Your task to perform on an android device: What's on my calendar today? Image 0: 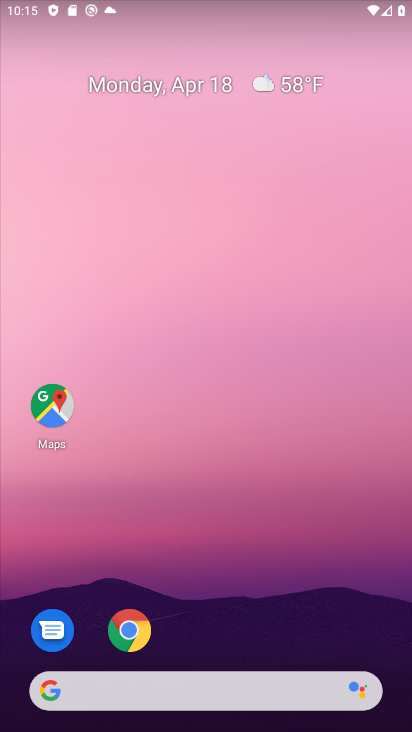
Step 0: click (195, 88)
Your task to perform on an android device: What's on my calendar today? Image 1: 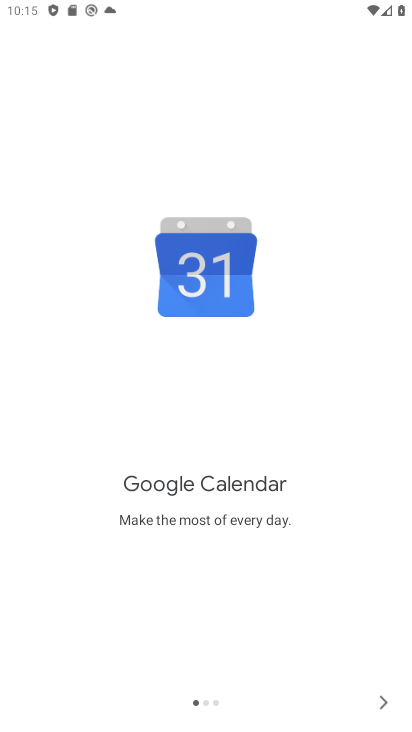
Step 1: click (379, 701)
Your task to perform on an android device: What's on my calendar today? Image 2: 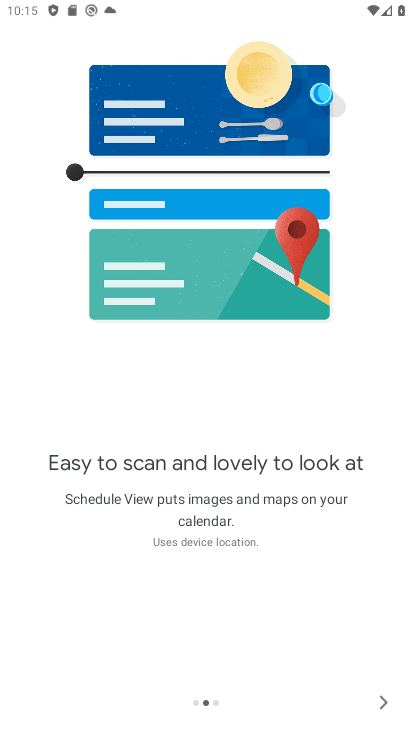
Step 2: click (383, 703)
Your task to perform on an android device: What's on my calendar today? Image 3: 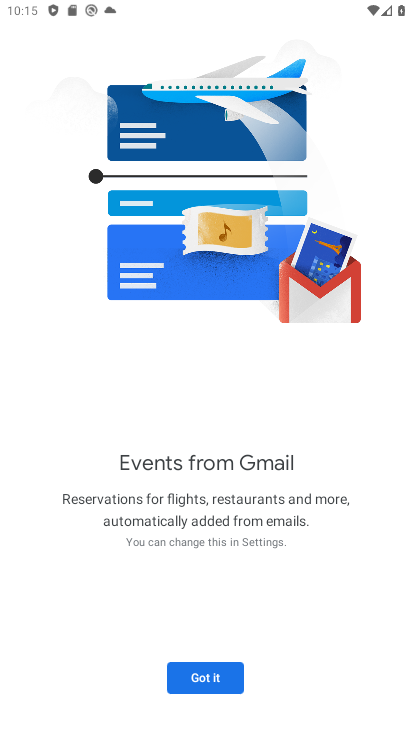
Step 3: click (226, 667)
Your task to perform on an android device: What's on my calendar today? Image 4: 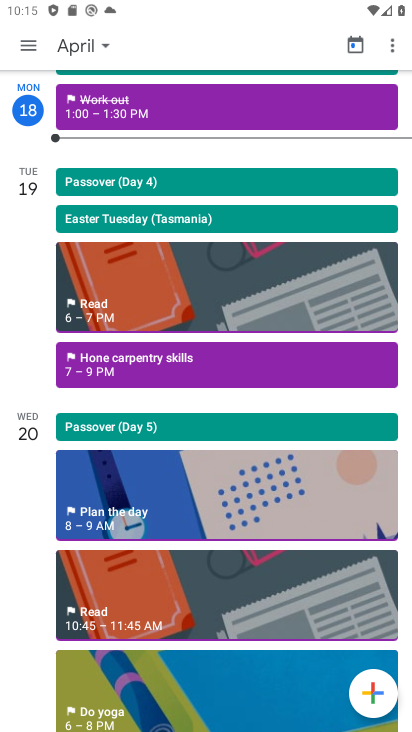
Step 4: click (245, 187)
Your task to perform on an android device: What's on my calendar today? Image 5: 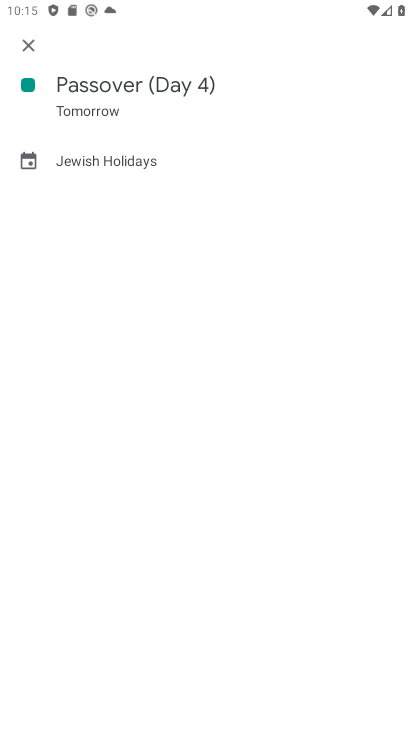
Step 5: task complete